Your task to perform on an android device: toggle airplane mode Image 0: 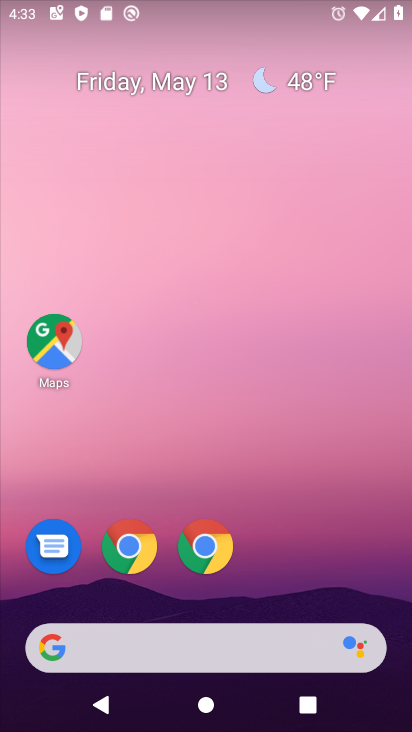
Step 0: click (130, 96)
Your task to perform on an android device: toggle airplane mode Image 1: 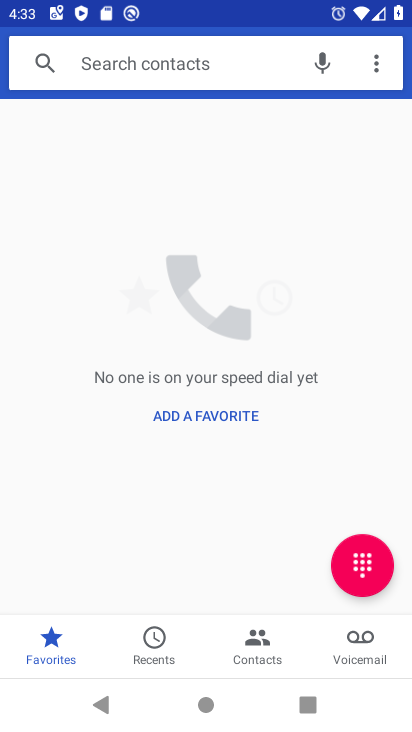
Step 1: press back button
Your task to perform on an android device: toggle airplane mode Image 2: 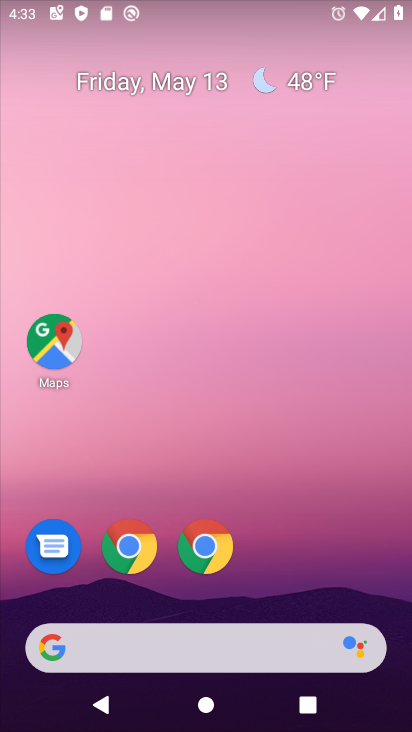
Step 2: drag from (247, 585) to (205, 11)
Your task to perform on an android device: toggle airplane mode Image 3: 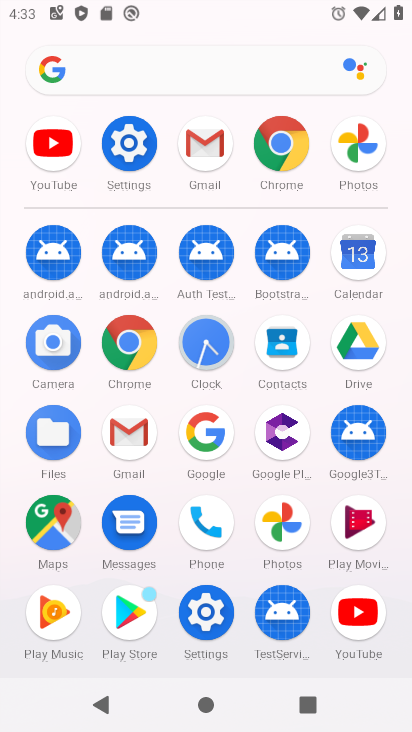
Step 3: click (132, 160)
Your task to perform on an android device: toggle airplane mode Image 4: 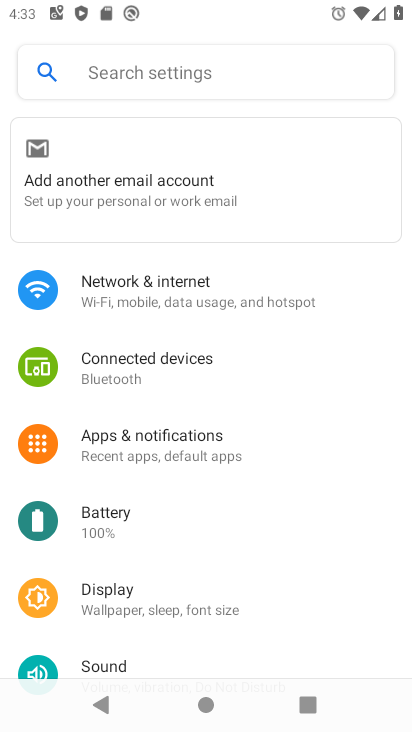
Step 4: click (138, 306)
Your task to perform on an android device: toggle airplane mode Image 5: 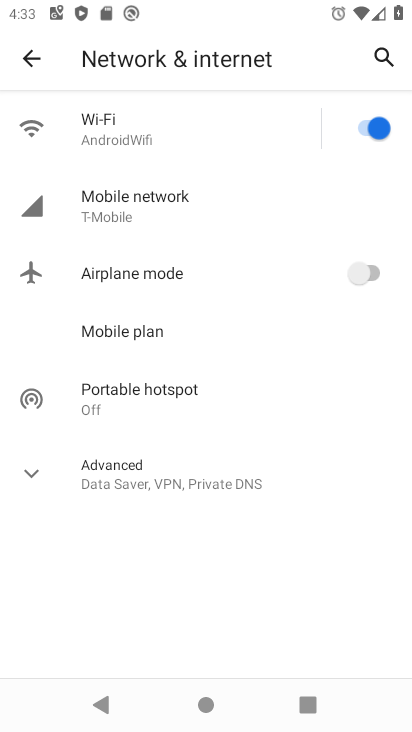
Step 5: click (360, 274)
Your task to perform on an android device: toggle airplane mode Image 6: 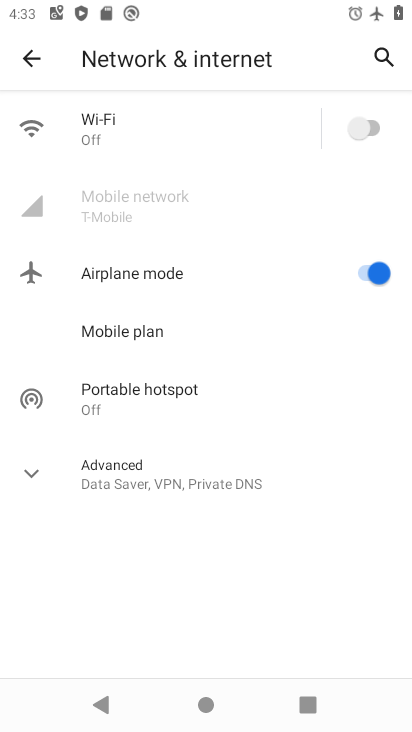
Step 6: task complete